Your task to perform on an android device: open app "Skype" Image 0: 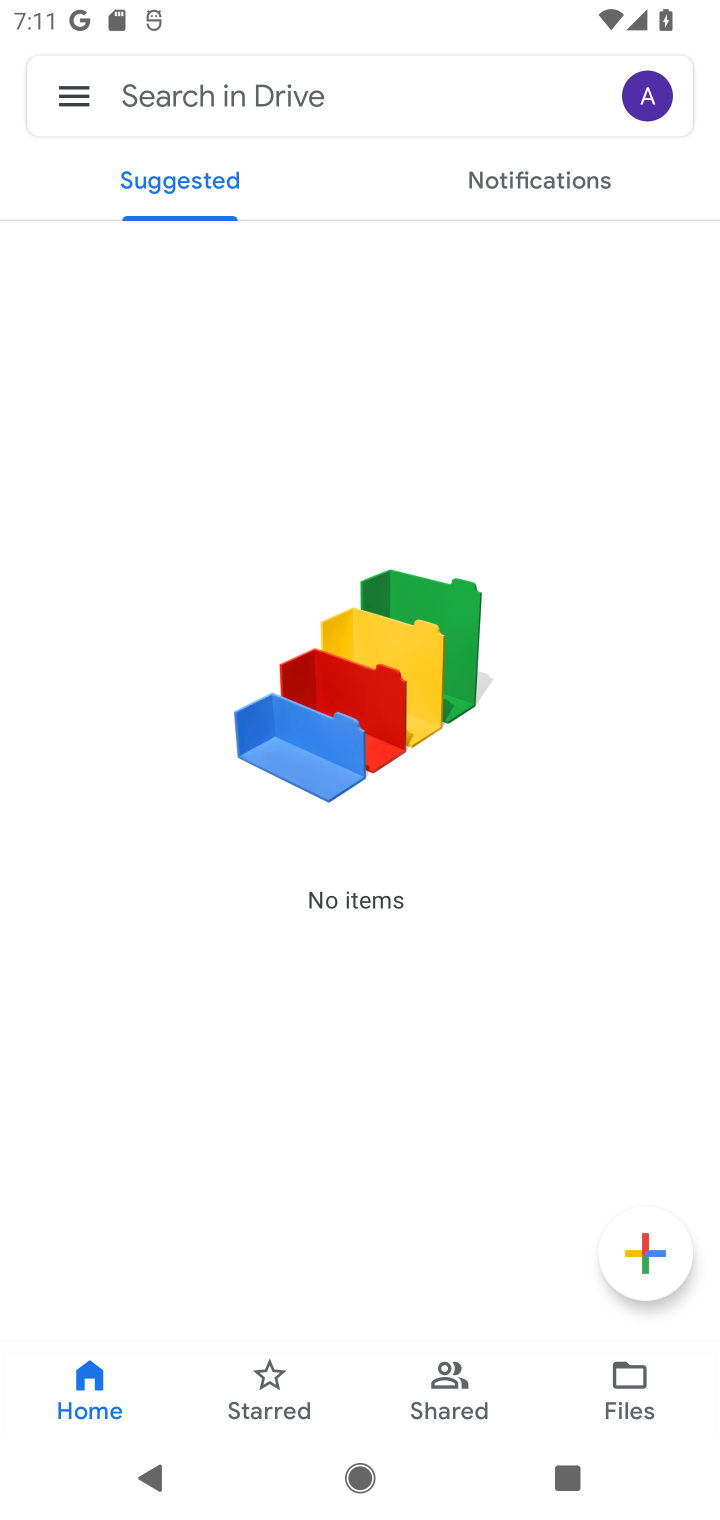
Step 0: press home button
Your task to perform on an android device: open app "Skype" Image 1: 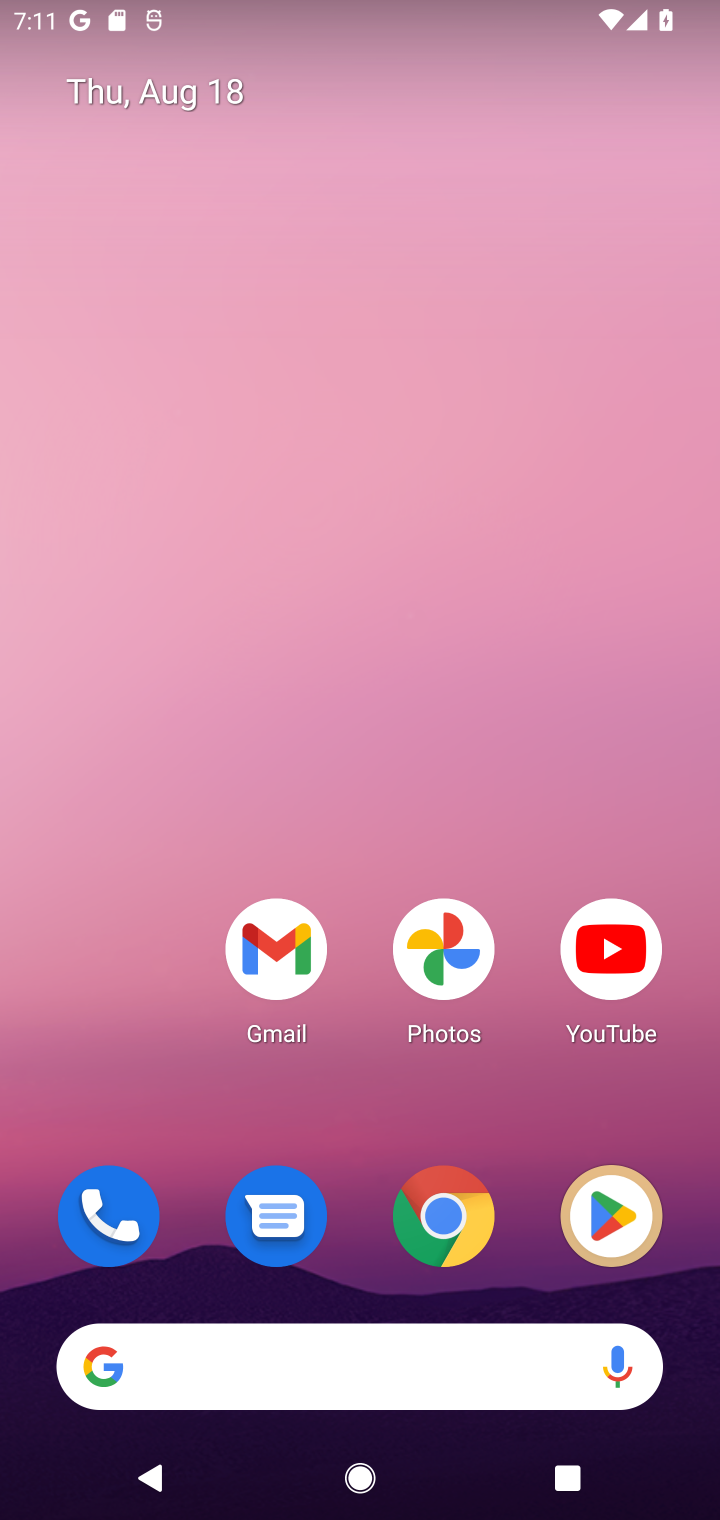
Step 1: click (605, 1211)
Your task to perform on an android device: open app "Skype" Image 2: 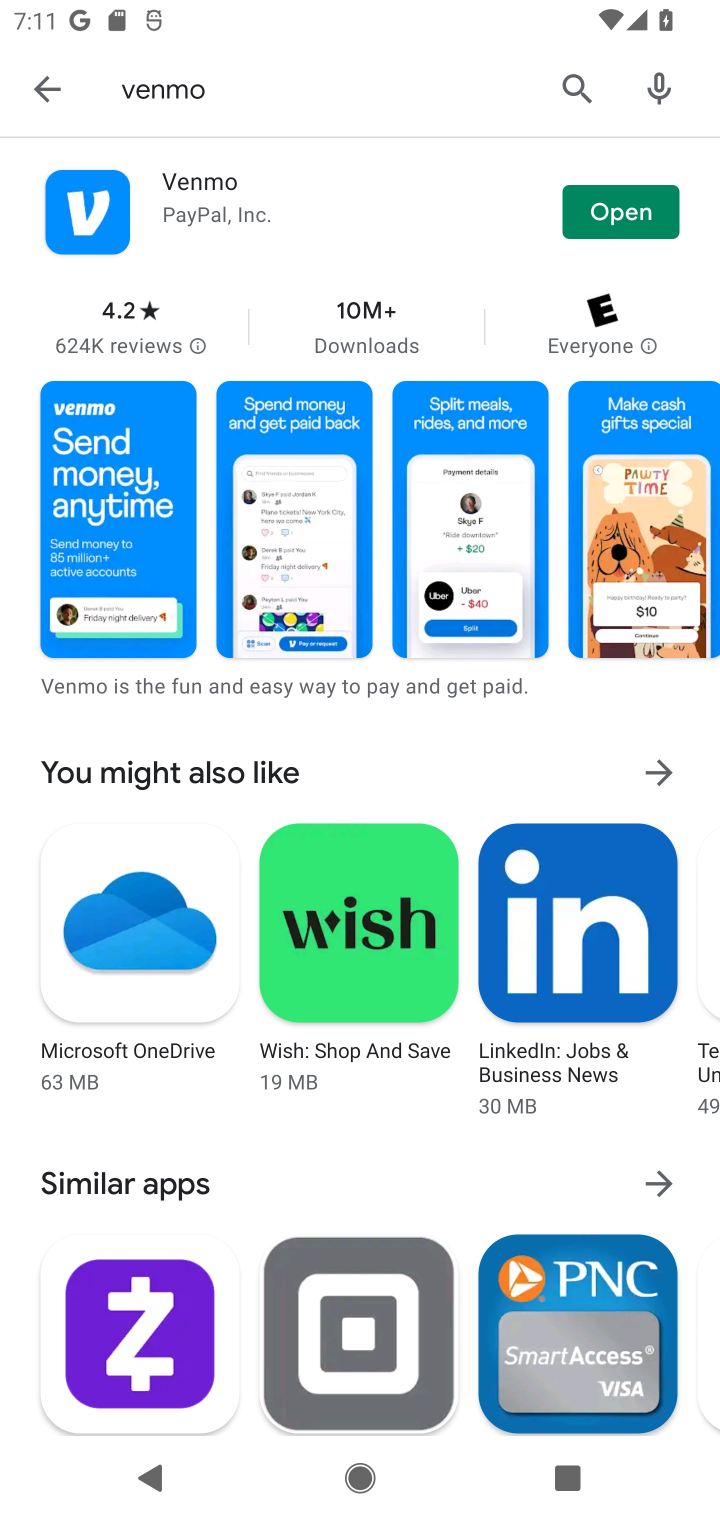
Step 2: click (564, 79)
Your task to perform on an android device: open app "Skype" Image 3: 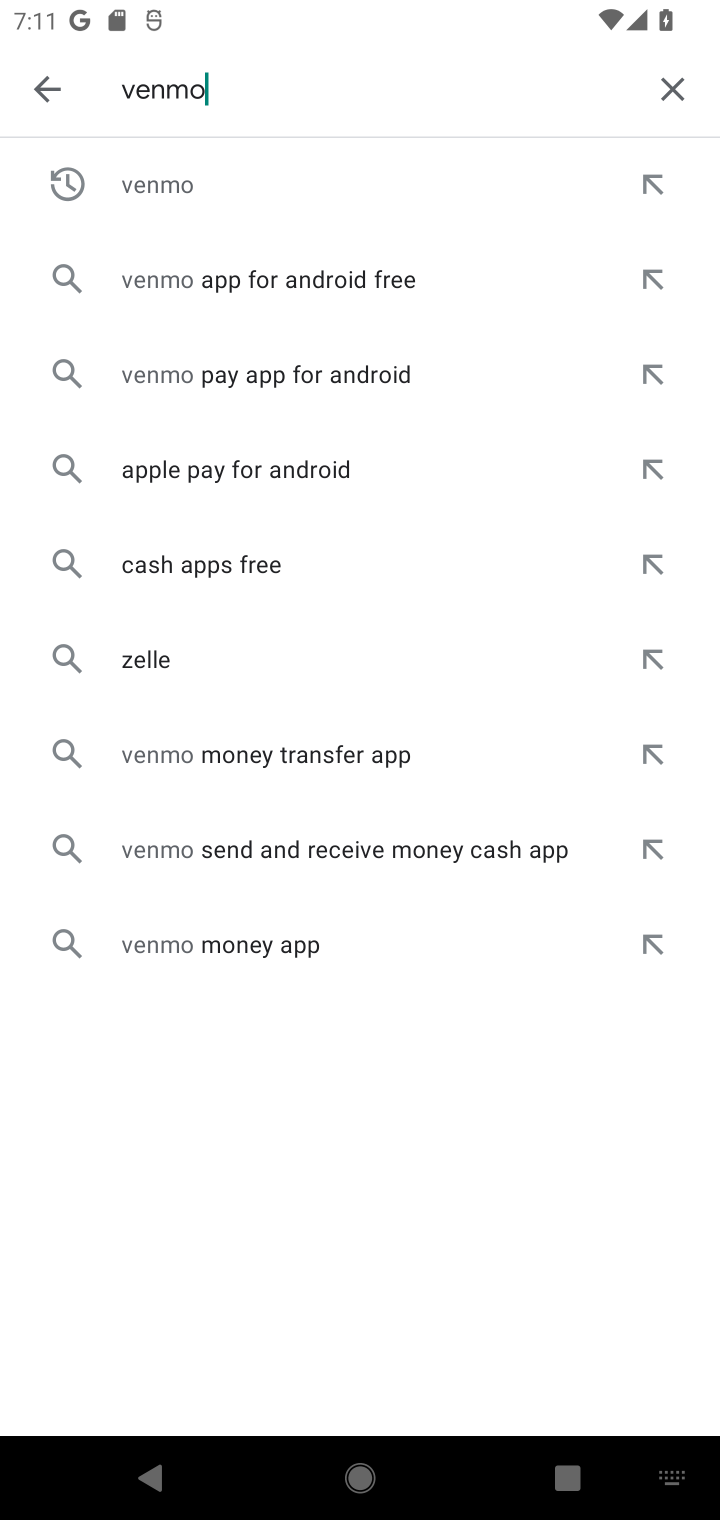
Step 3: click (668, 87)
Your task to perform on an android device: open app "Skype" Image 4: 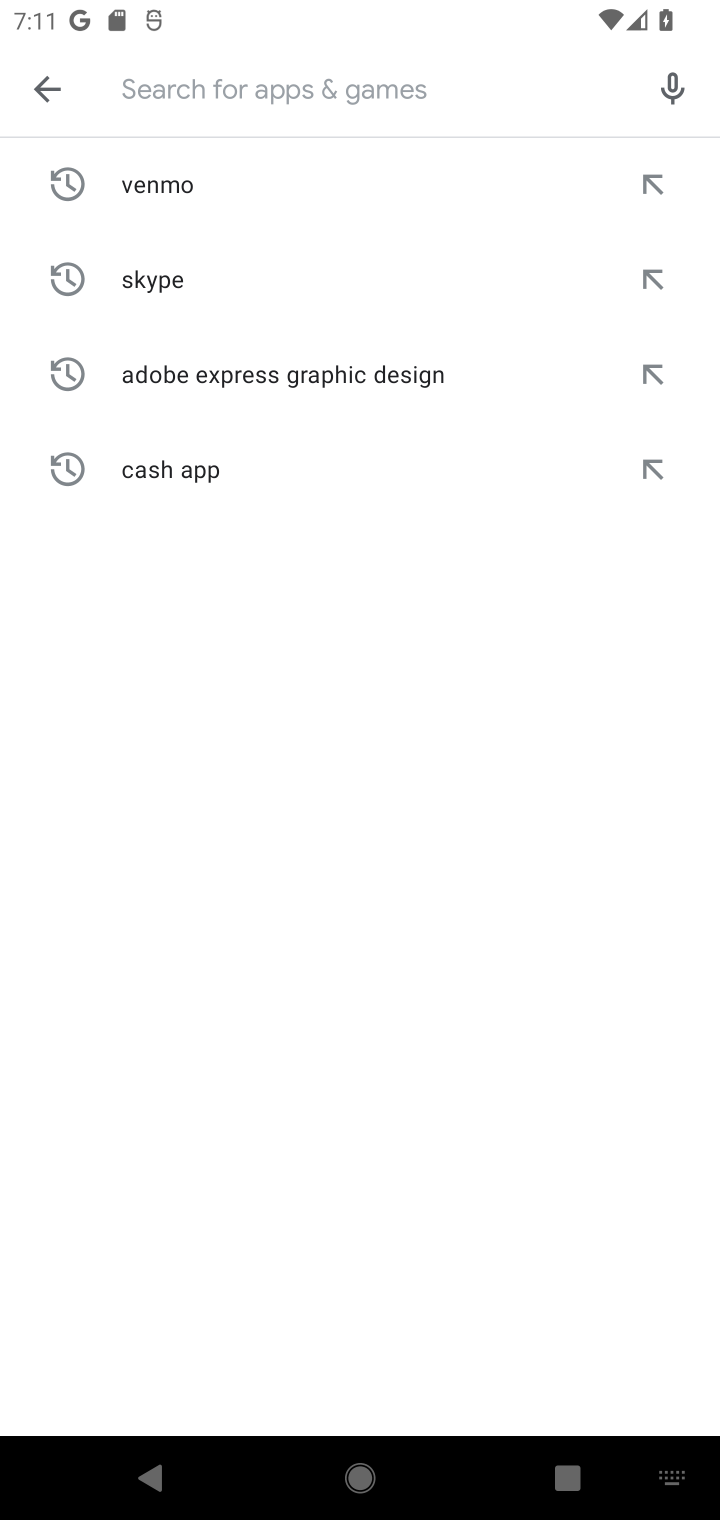
Step 4: type "Skype"
Your task to perform on an android device: open app "Skype" Image 5: 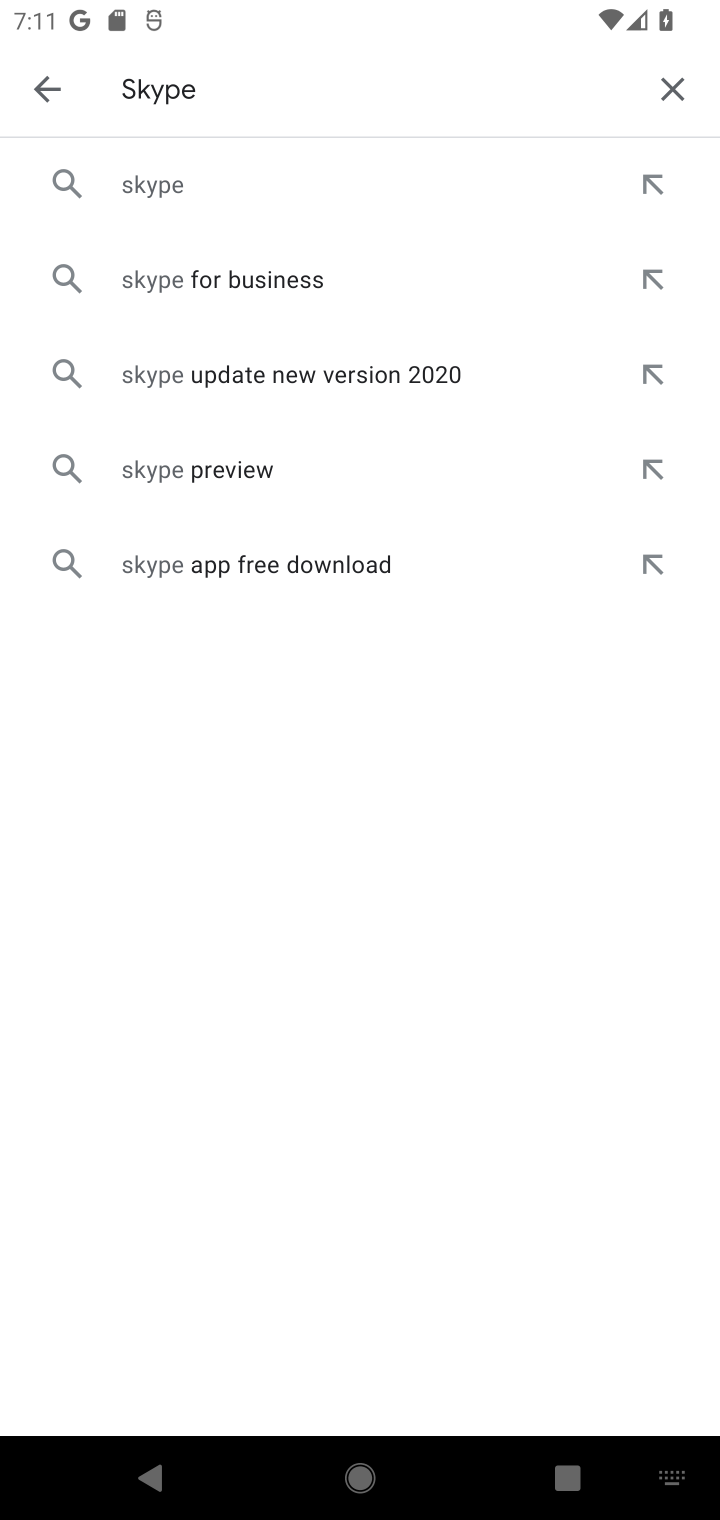
Step 5: click (150, 172)
Your task to perform on an android device: open app "Skype" Image 6: 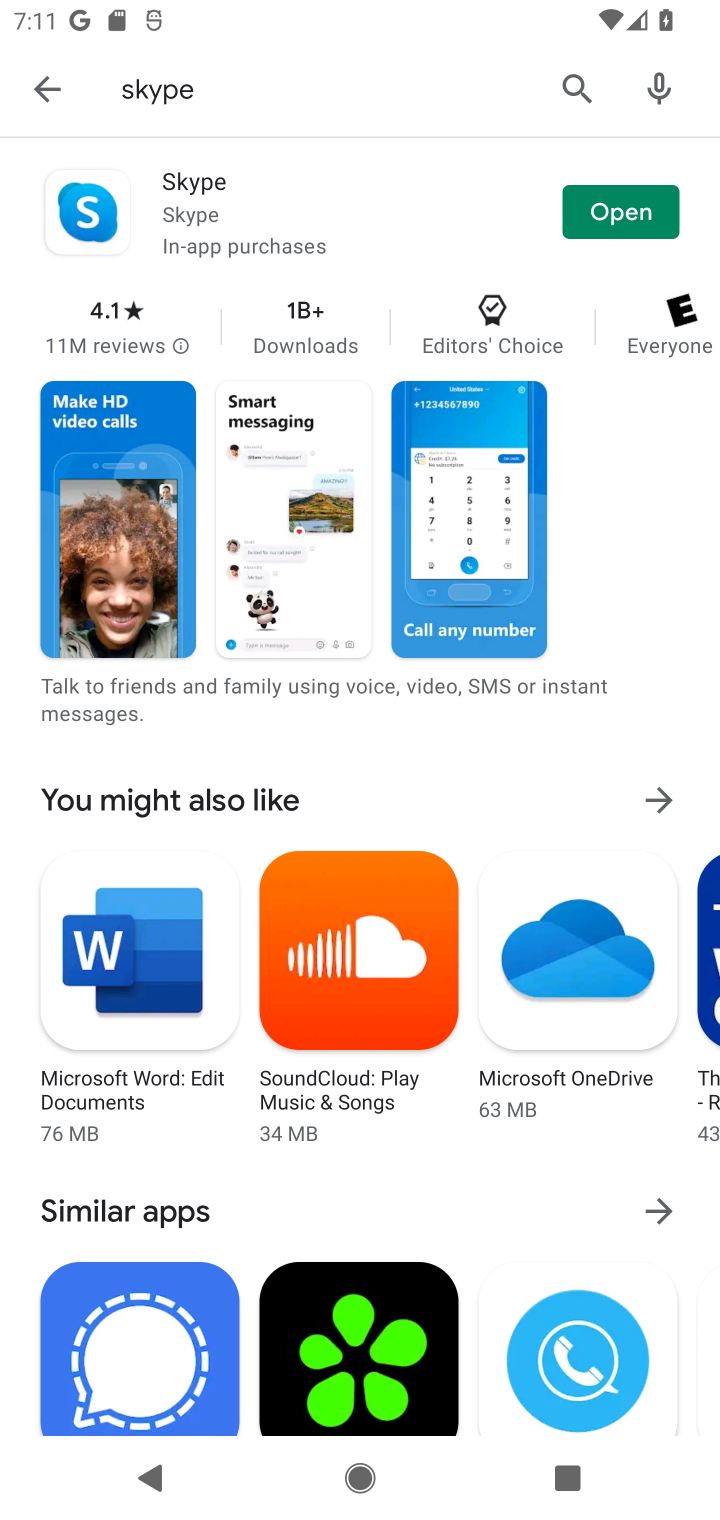
Step 6: click (622, 201)
Your task to perform on an android device: open app "Skype" Image 7: 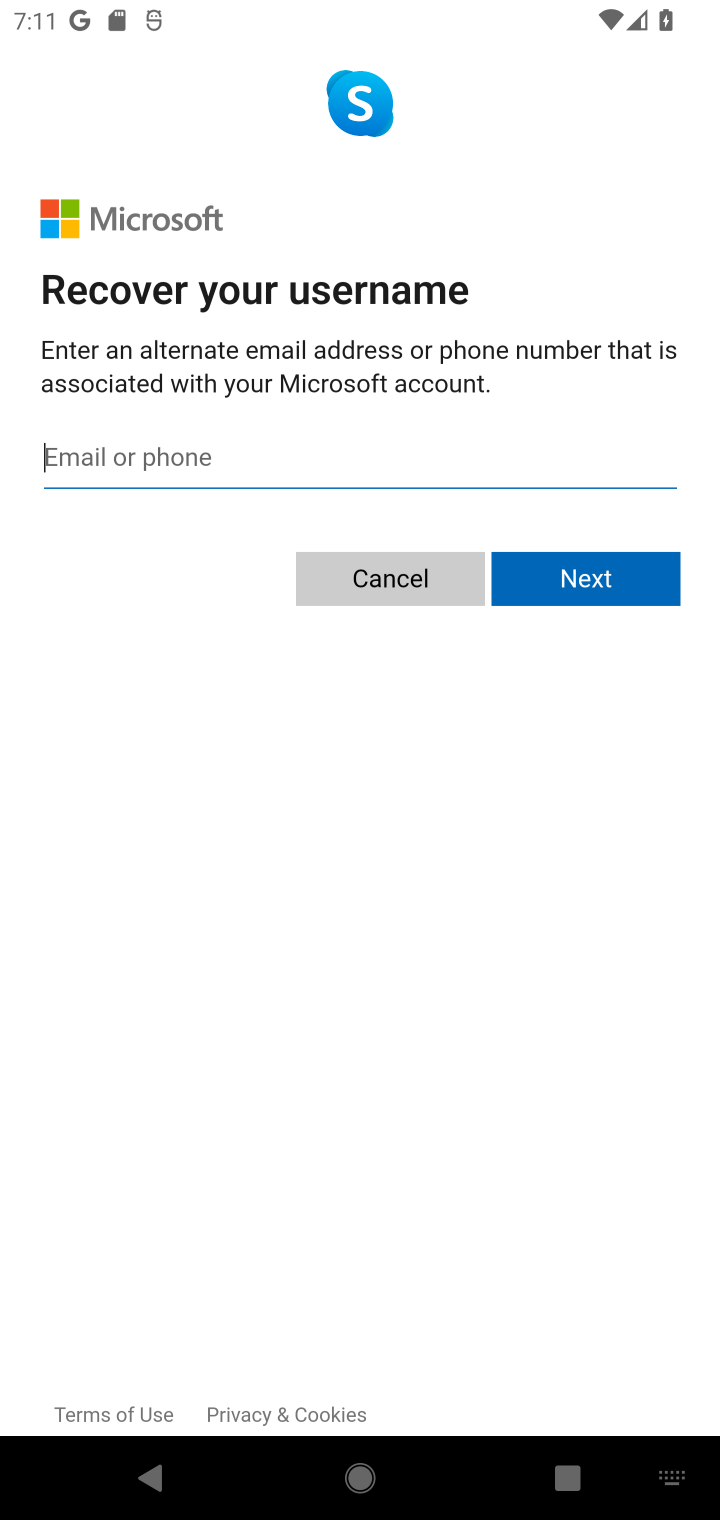
Step 7: task complete